Your task to perform on an android device: open chrome and create a bookmark for the current page Image 0: 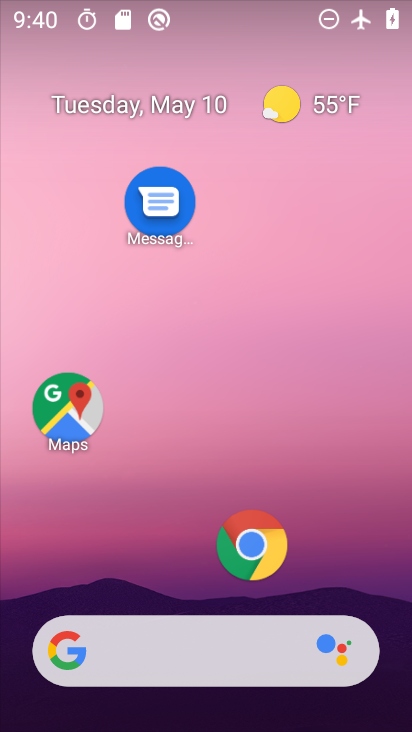
Step 0: click (228, 549)
Your task to perform on an android device: open chrome and create a bookmark for the current page Image 1: 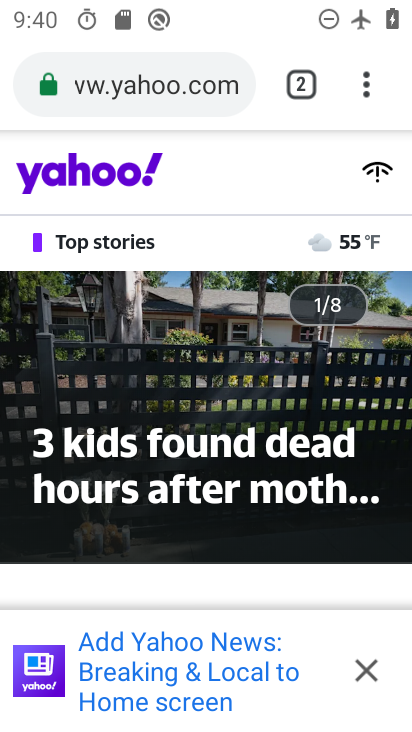
Step 1: click (314, 98)
Your task to perform on an android device: open chrome and create a bookmark for the current page Image 2: 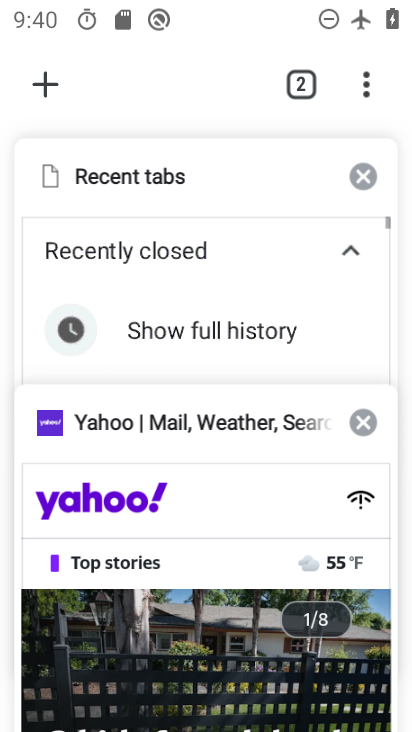
Step 2: click (191, 179)
Your task to perform on an android device: open chrome and create a bookmark for the current page Image 3: 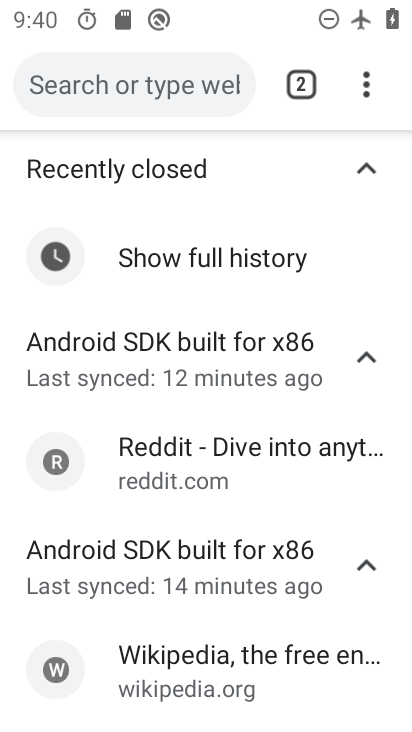
Step 3: click (123, 89)
Your task to perform on an android device: open chrome and create a bookmark for the current page Image 4: 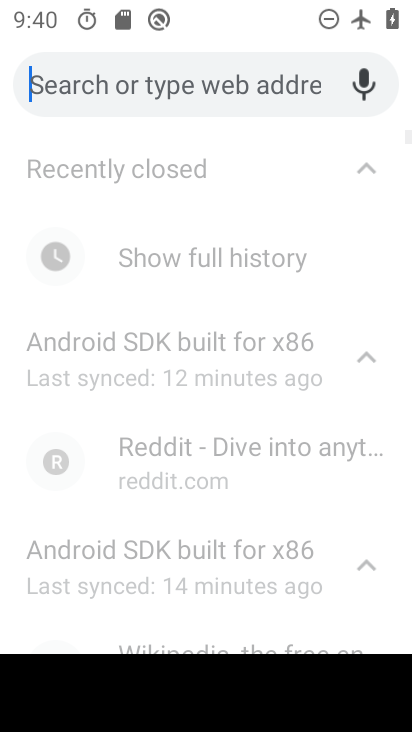
Step 4: type "dshsth"
Your task to perform on an android device: open chrome and create a bookmark for the current page Image 5: 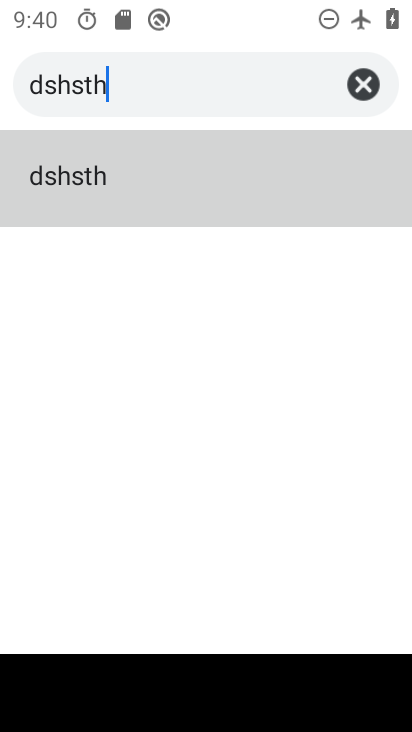
Step 5: click (129, 191)
Your task to perform on an android device: open chrome and create a bookmark for the current page Image 6: 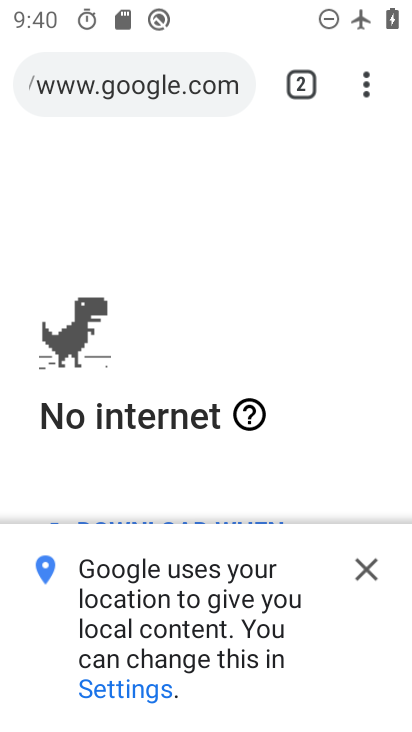
Step 6: task complete